Your task to perform on an android device: allow cookies in the chrome app Image 0: 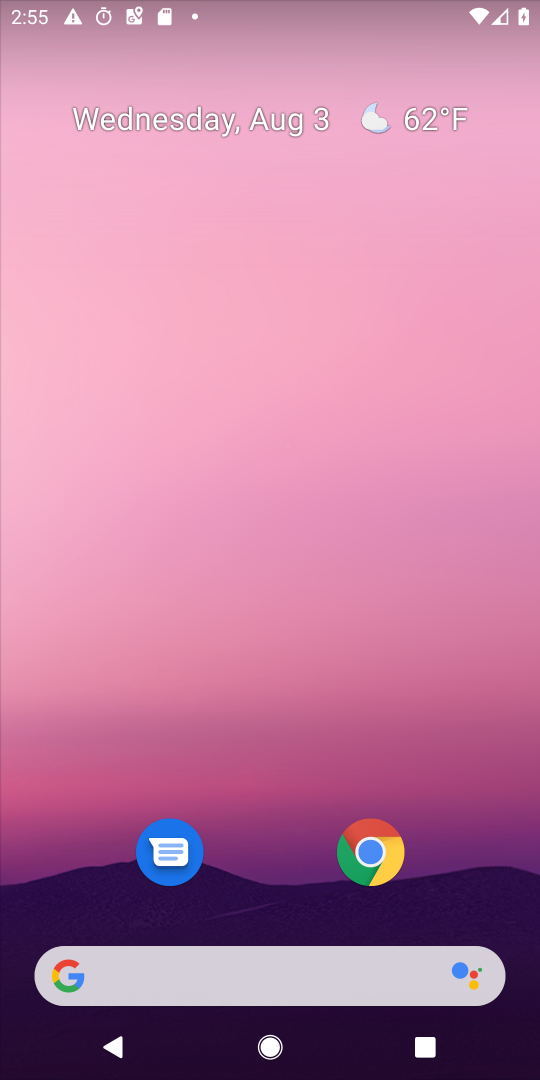
Step 0: press home button
Your task to perform on an android device: allow cookies in the chrome app Image 1: 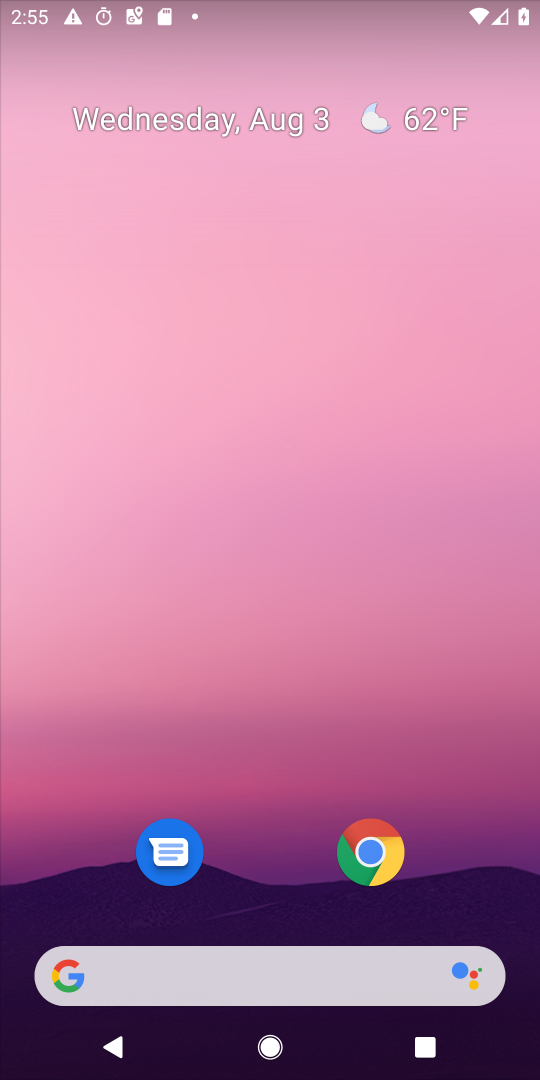
Step 1: drag from (479, 752) to (278, 55)
Your task to perform on an android device: allow cookies in the chrome app Image 2: 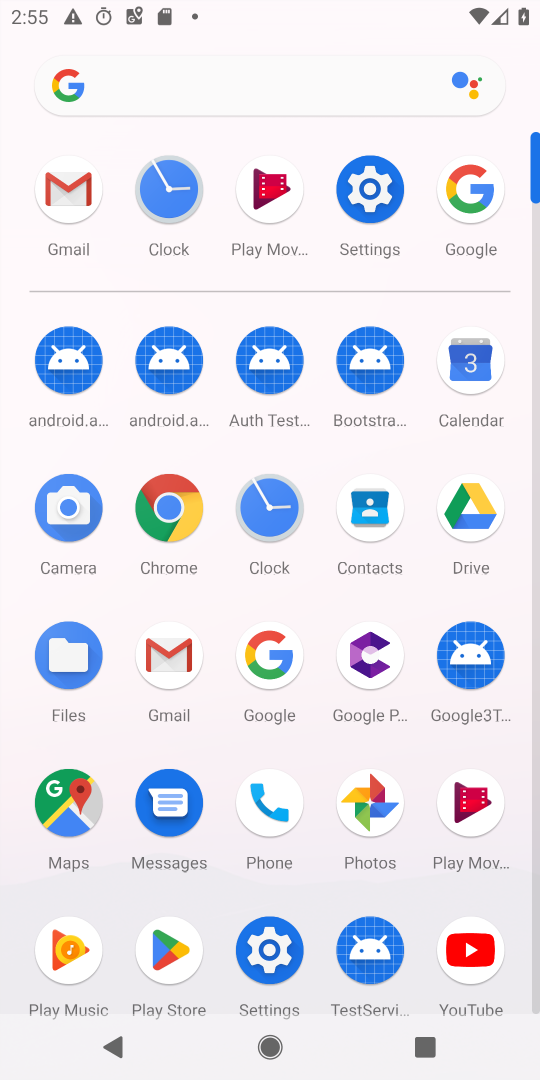
Step 2: click (150, 506)
Your task to perform on an android device: allow cookies in the chrome app Image 3: 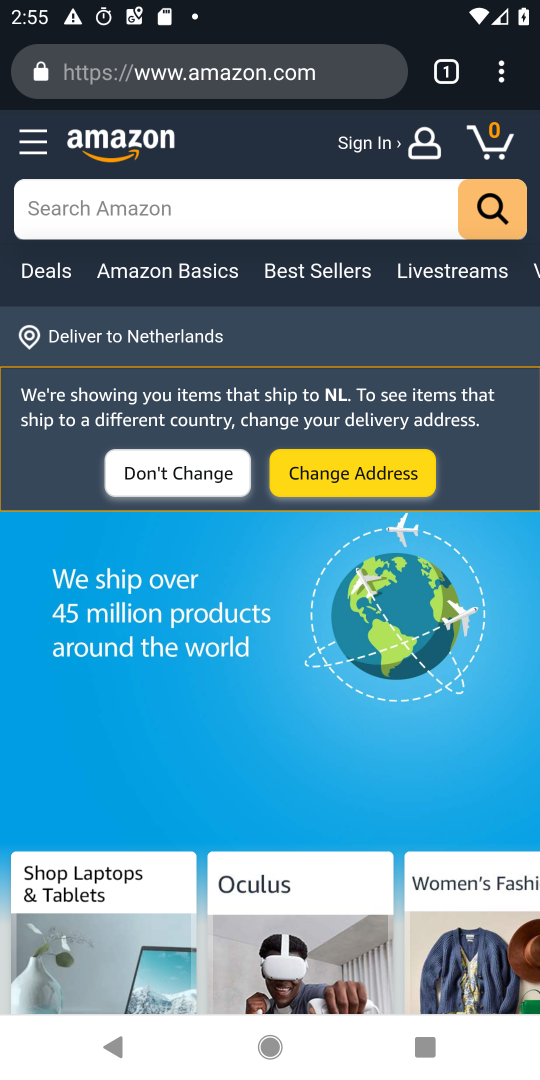
Step 3: click (509, 65)
Your task to perform on an android device: allow cookies in the chrome app Image 4: 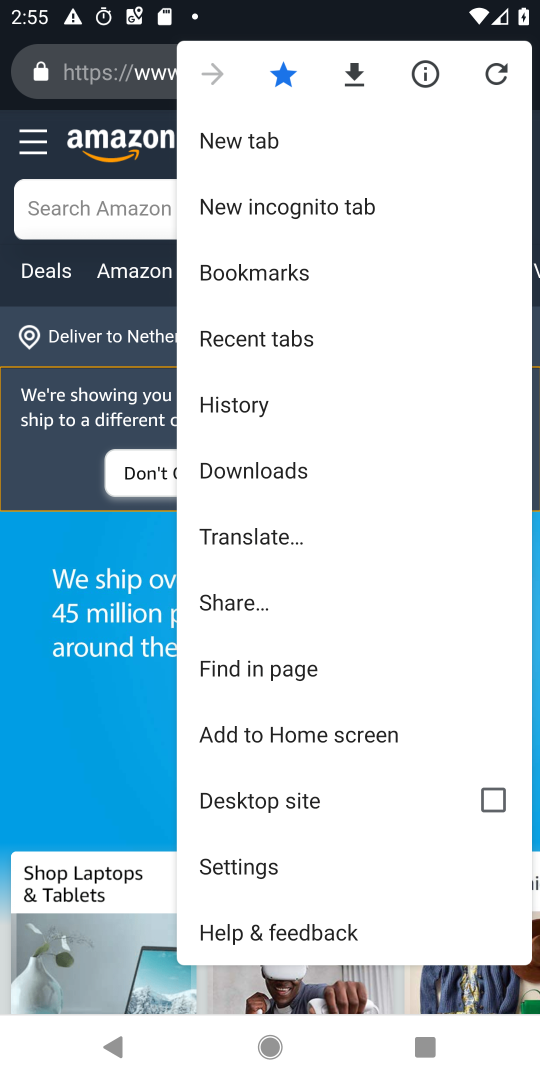
Step 4: click (238, 421)
Your task to perform on an android device: allow cookies in the chrome app Image 5: 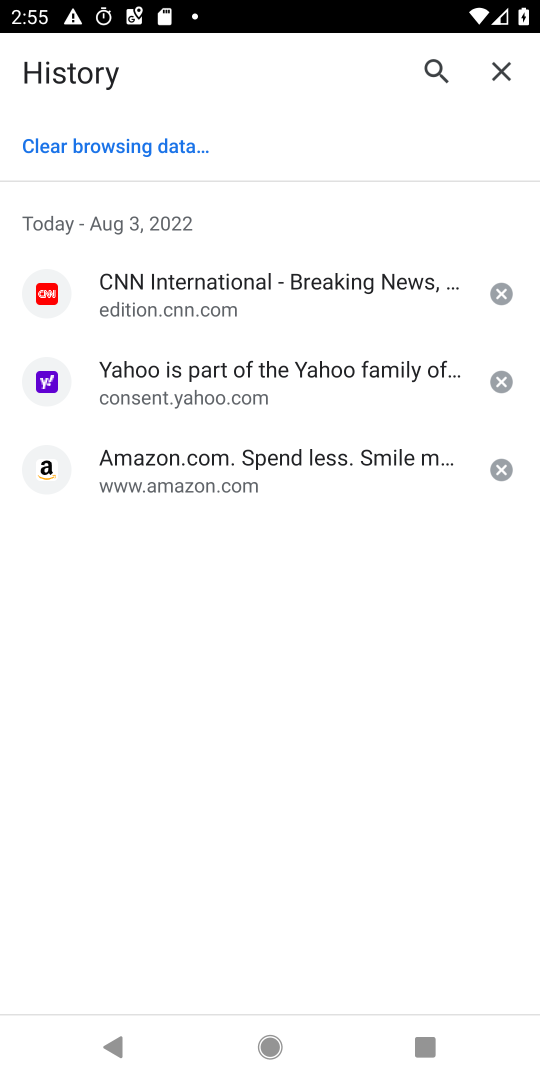
Step 5: click (108, 152)
Your task to perform on an android device: allow cookies in the chrome app Image 6: 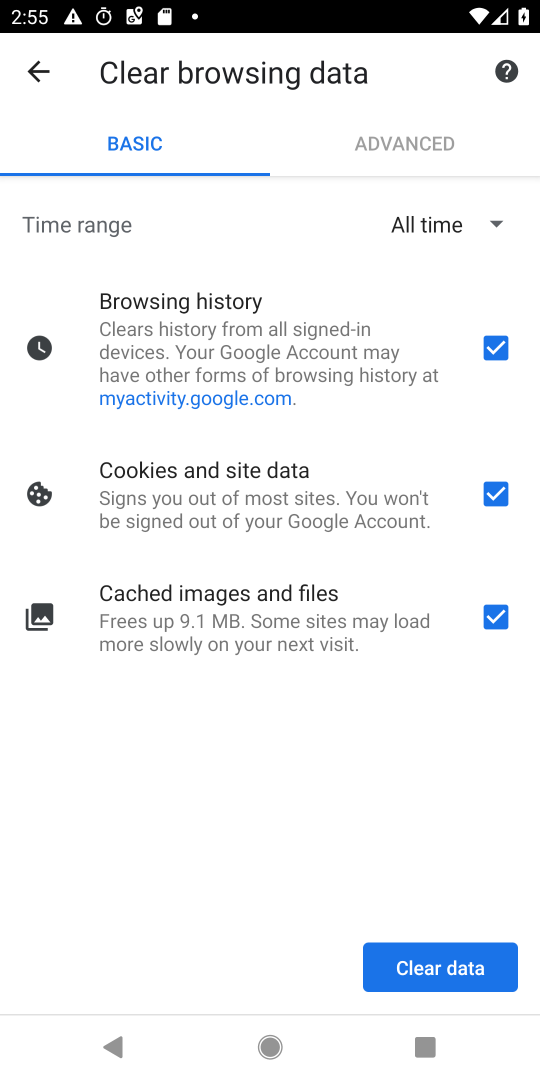
Step 6: task complete